Your task to perform on an android device: change timer sound Image 0: 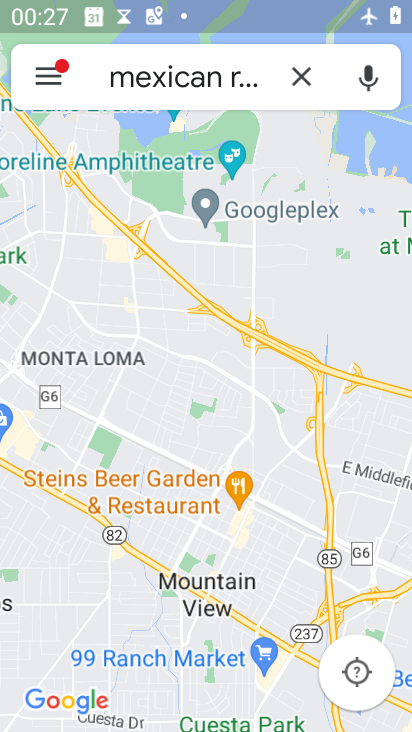
Step 0: press home button
Your task to perform on an android device: change timer sound Image 1: 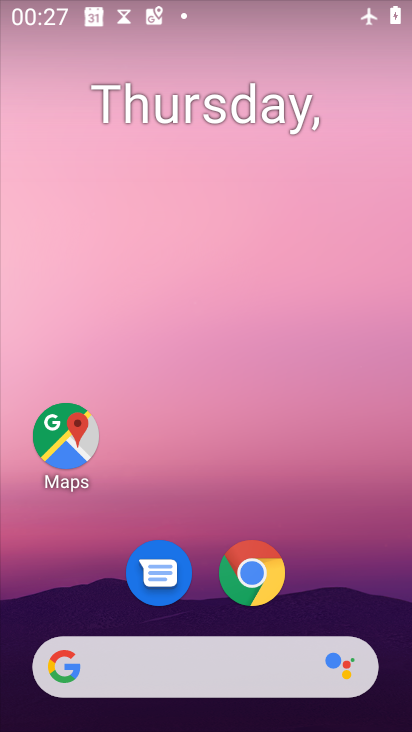
Step 1: drag from (312, 579) to (315, 290)
Your task to perform on an android device: change timer sound Image 2: 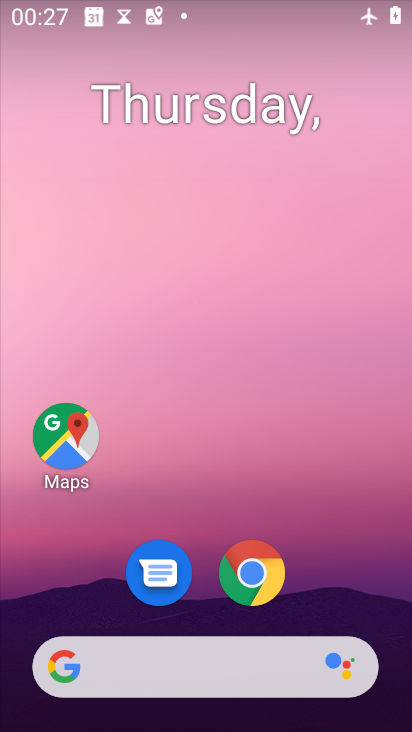
Step 2: drag from (312, 567) to (323, 280)
Your task to perform on an android device: change timer sound Image 3: 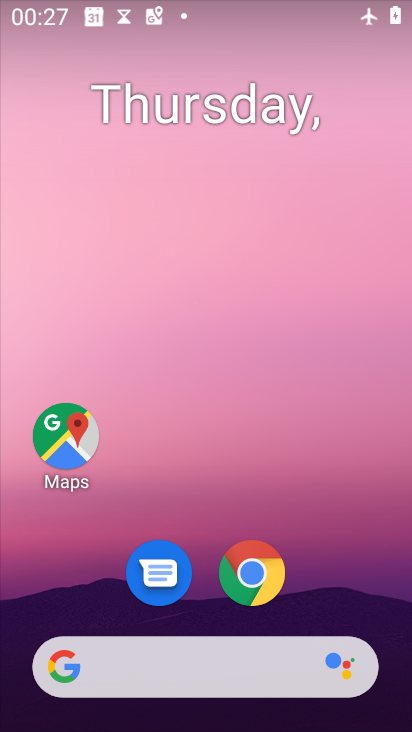
Step 3: drag from (266, 622) to (271, 241)
Your task to perform on an android device: change timer sound Image 4: 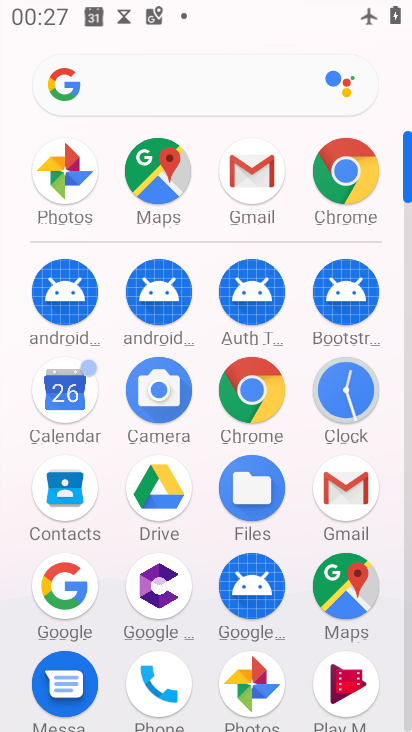
Step 4: click (337, 382)
Your task to perform on an android device: change timer sound Image 5: 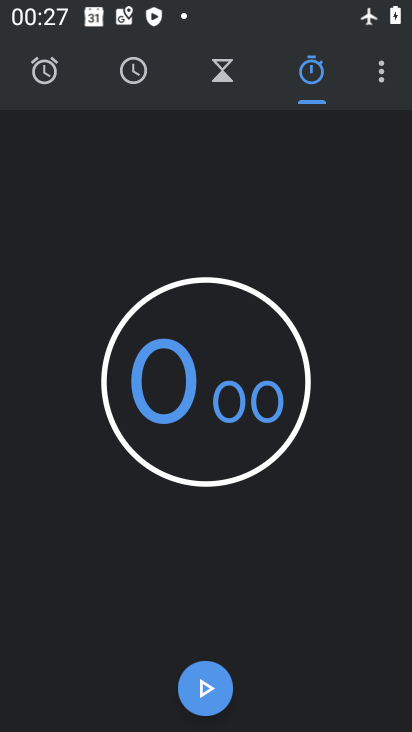
Step 5: click (382, 69)
Your task to perform on an android device: change timer sound Image 6: 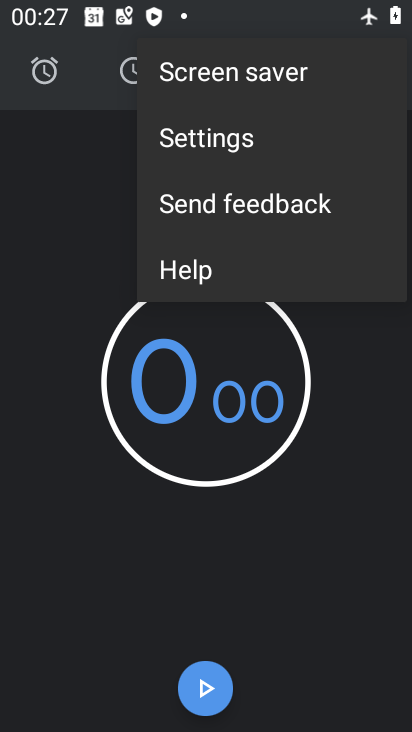
Step 6: click (241, 141)
Your task to perform on an android device: change timer sound Image 7: 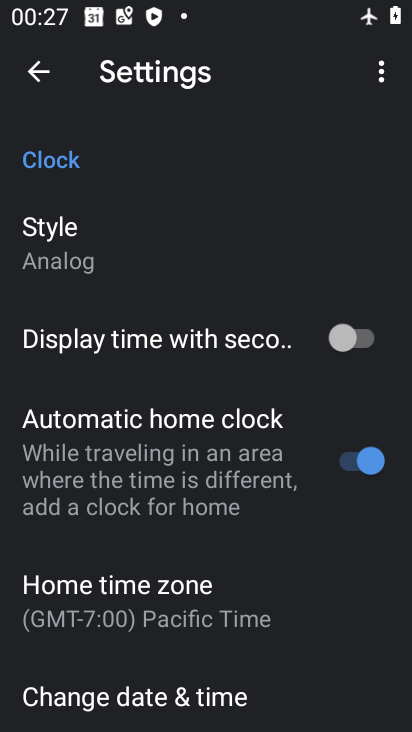
Step 7: drag from (284, 578) to (283, 379)
Your task to perform on an android device: change timer sound Image 8: 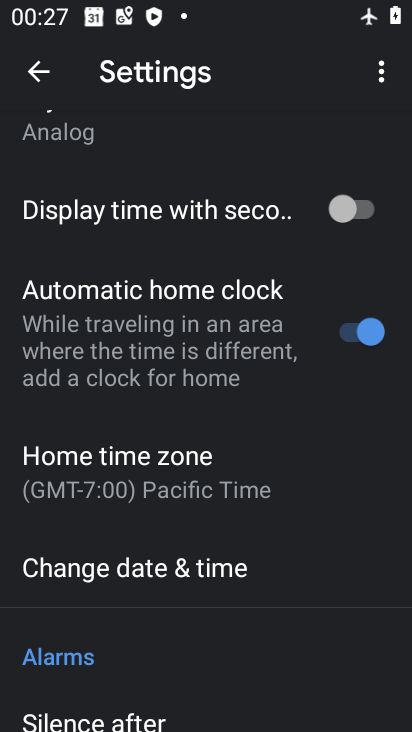
Step 8: drag from (168, 657) to (165, 374)
Your task to perform on an android device: change timer sound Image 9: 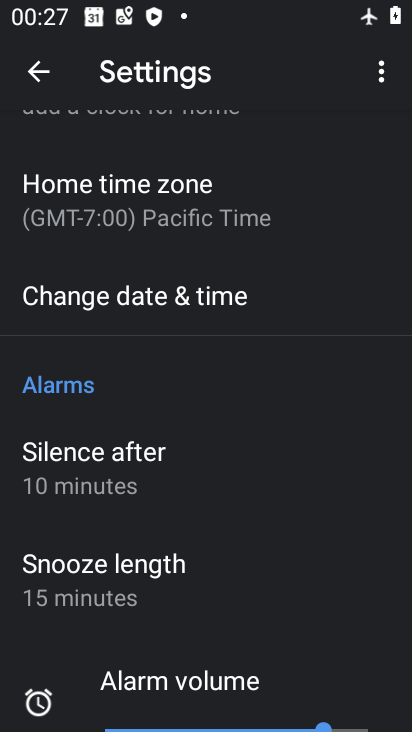
Step 9: drag from (139, 619) to (210, 243)
Your task to perform on an android device: change timer sound Image 10: 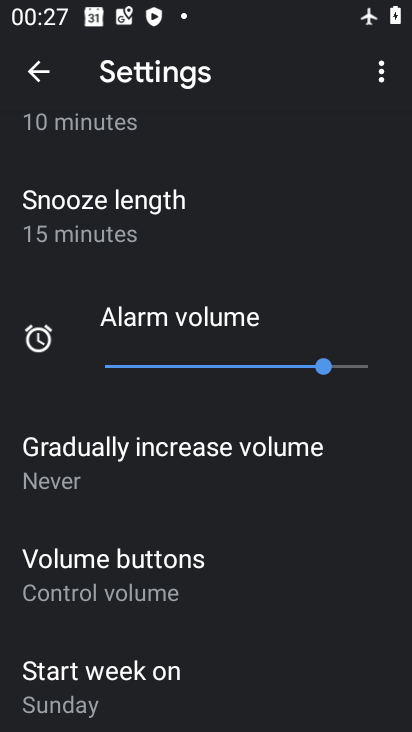
Step 10: drag from (256, 598) to (272, 276)
Your task to perform on an android device: change timer sound Image 11: 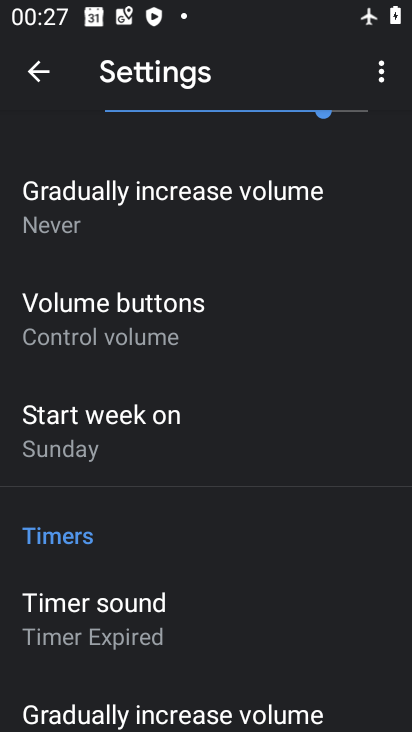
Step 11: click (151, 611)
Your task to perform on an android device: change timer sound Image 12: 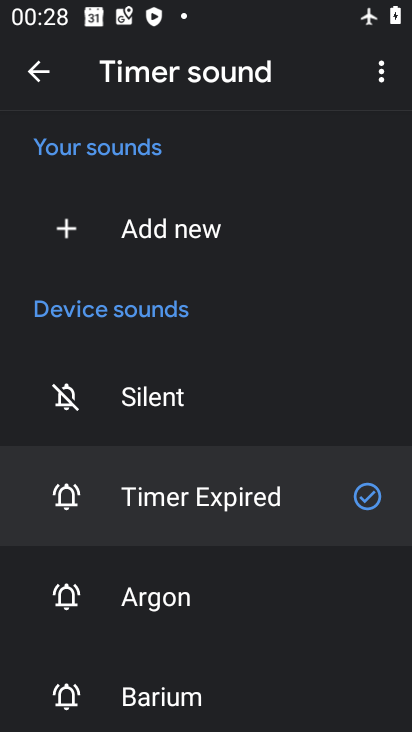
Step 12: click (209, 584)
Your task to perform on an android device: change timer sound Image 13: 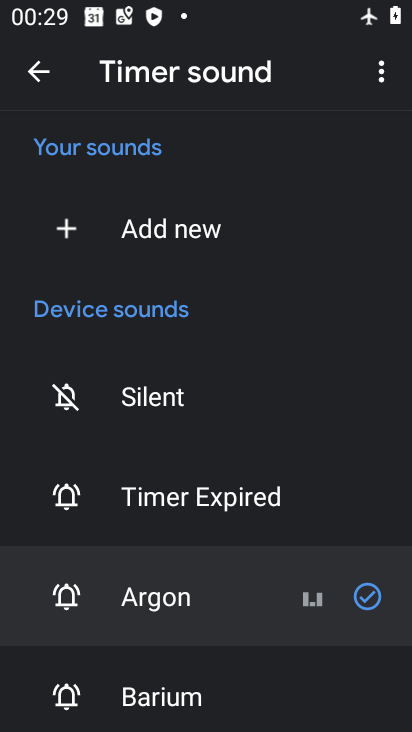
Step 13: task complete